Your task to perform on an android device: turn notification dots off Image 0: 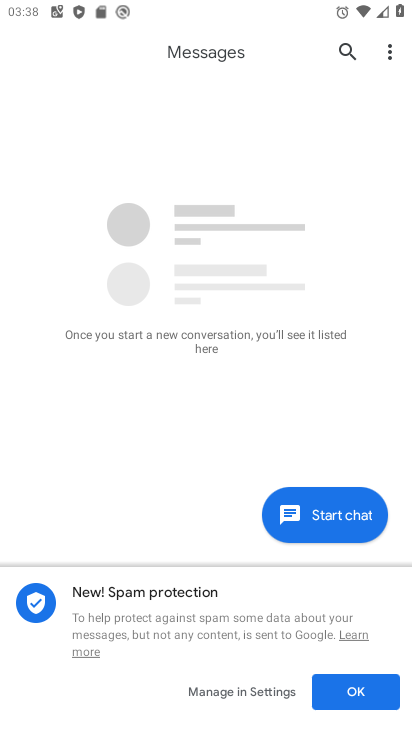
Step 0: press home button
Your task to perform on an android device: turn notification dots off Image 1: 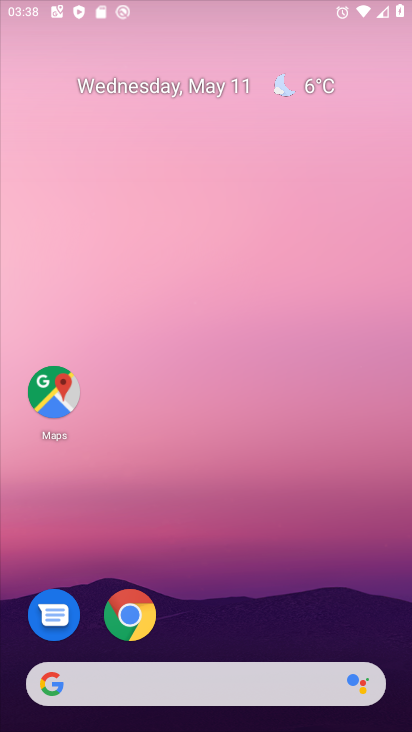
Step 1: drag from (227, 536) to (196, 0)
Your task to perform on an android device: turn notification dots off Image 2: 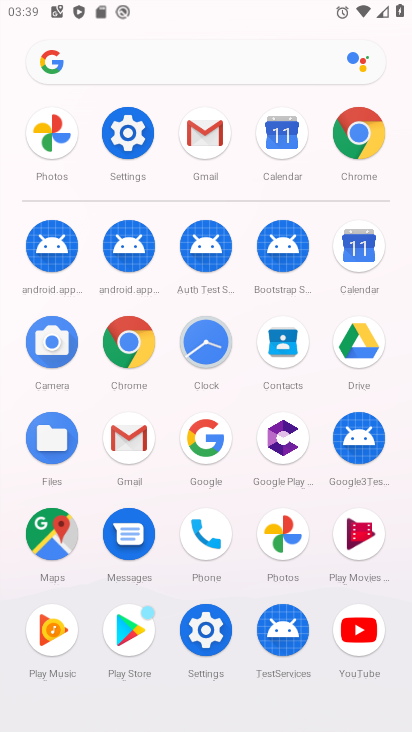
Step 2: click (139, 131)
Your task to perform on an android device: turn notification dots off Image 3: 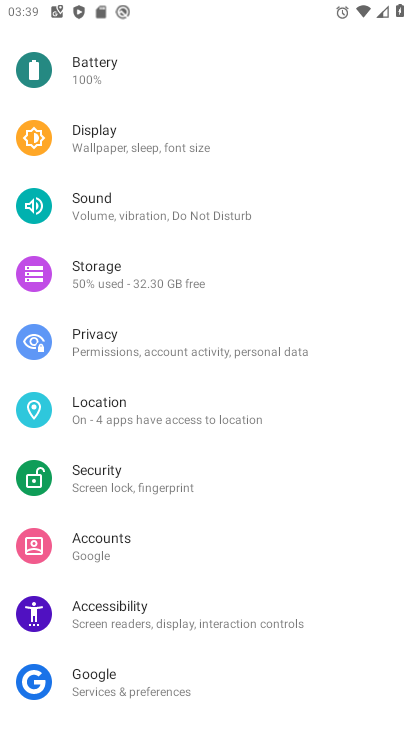
Step 3: drag from (178, 145) to (215, 603)
Your task to perform on an android device: turn notification dots off Image 4: 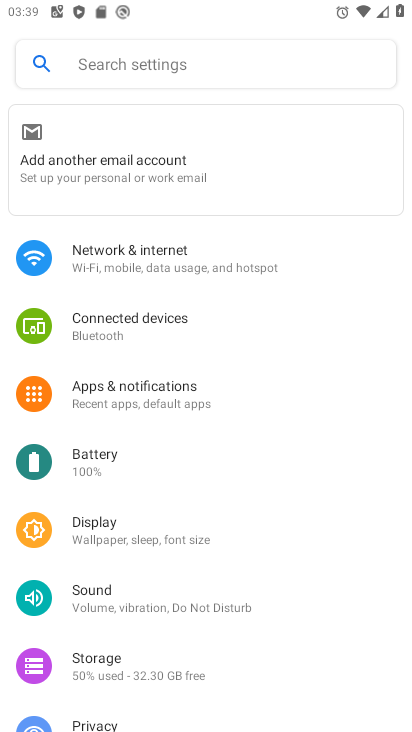
Step 4: click (128, 392)
Your task to perform on an android device: turn notification dots off Image 5: 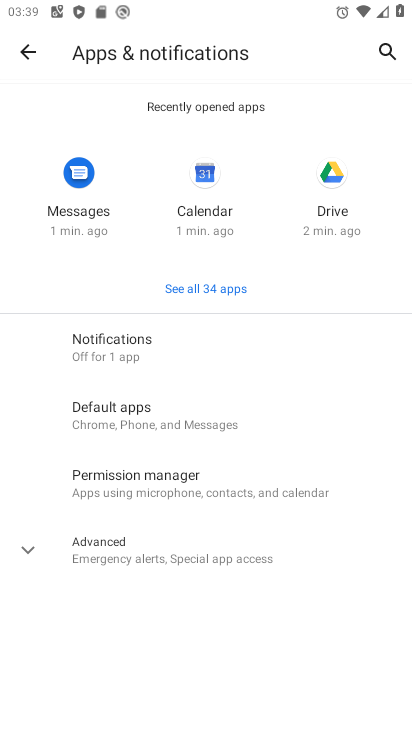
Step 5: click (158, 346)
Your task to perform on an android device: turn notification dots off Image 6: 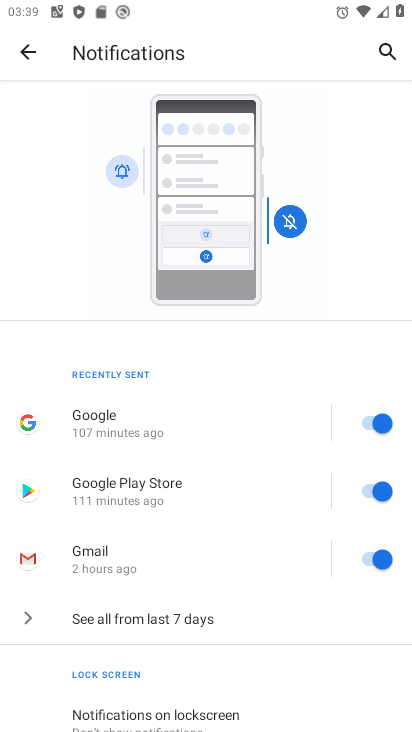
Step 6: drag from (190, 513) to (267, 178)
Your task to perform on an android device: turn notification dots off Image 7: 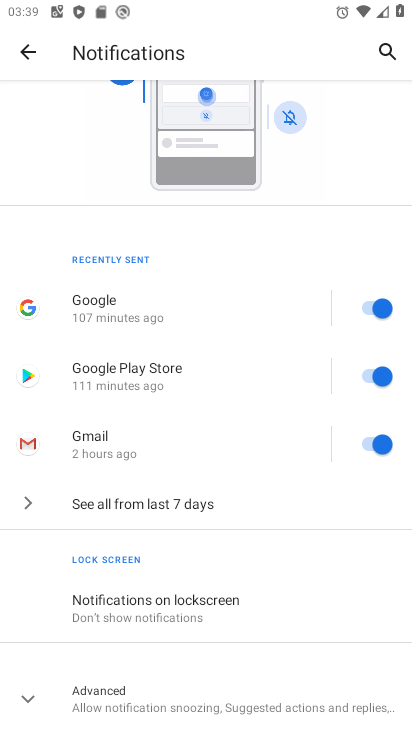
Step 7: click (164, 683)
Your task to perform on an android device: turn notification dots off Image 8: 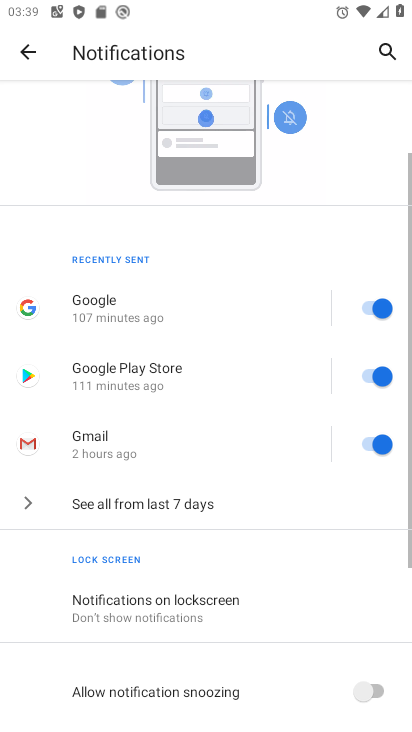
Step 8: drag from (198, 646) to (256, 183)
Your task to perform on an android device: turn notification dots off Image 9: 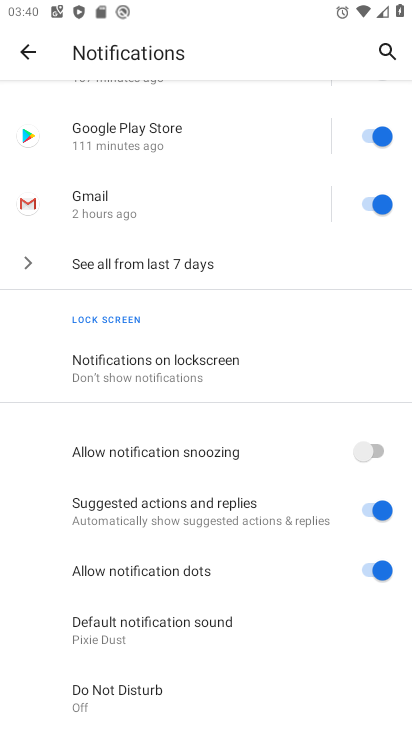
Step 9: click (378, 564)
Your task to perform on an android device: turn notification dots off Image 10: 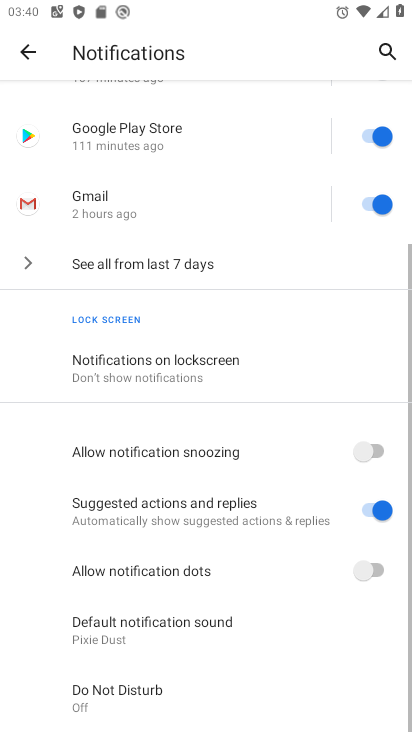
Step 10: task complete